Your task to perform on an android device: Show me recent news Image 0: 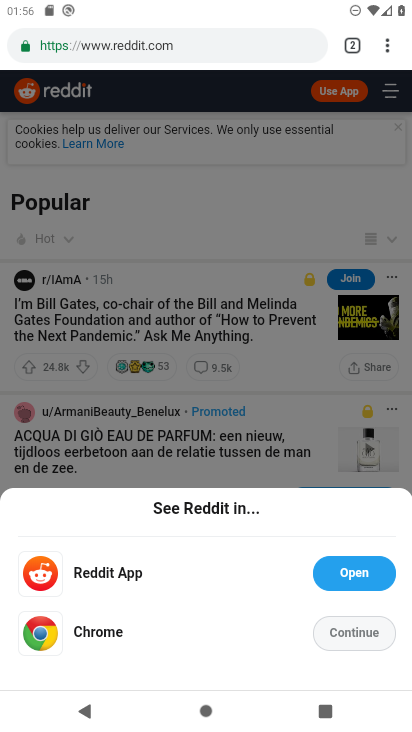
Step 0: press home button
Your task to perform on an android device: Show me recent news Image 1: 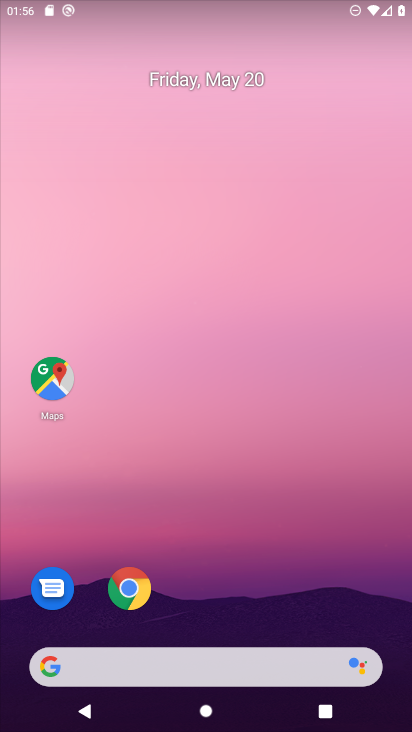
Step 1: task complete